Your task to perform on an android device: toggle sleep mode Image 0: 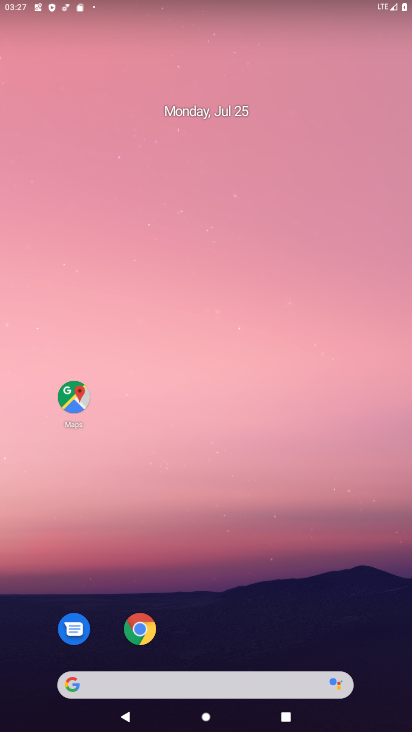
Step 0: drag from (237, 621) to (235, 58)
Your task to perform on an android device: toggle sleep mode Image 1: 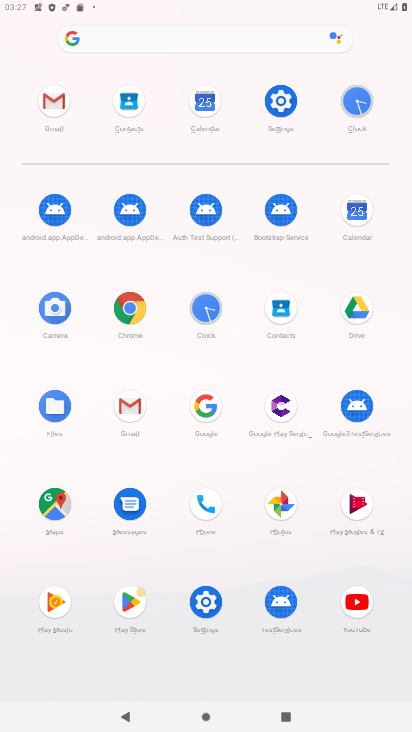
Step 1: click (277, 109)
Your task to perform on an android device: toggle sleep mode Image 2: 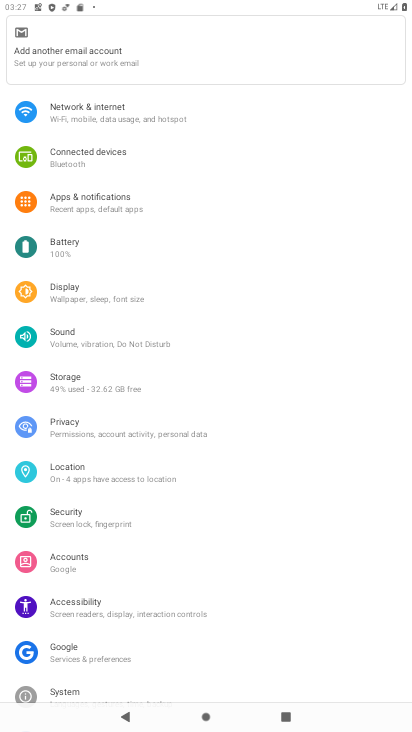
Step 2: click (106, 297)
Your task to perform on an android device: toggle sleep mode Image 3: 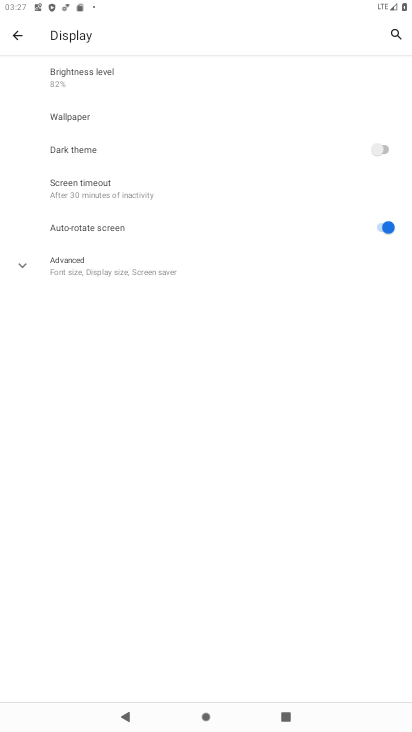
Step 3: click (32, 268)
Your task to perform on an android device: toggle sleep mode Image 4: 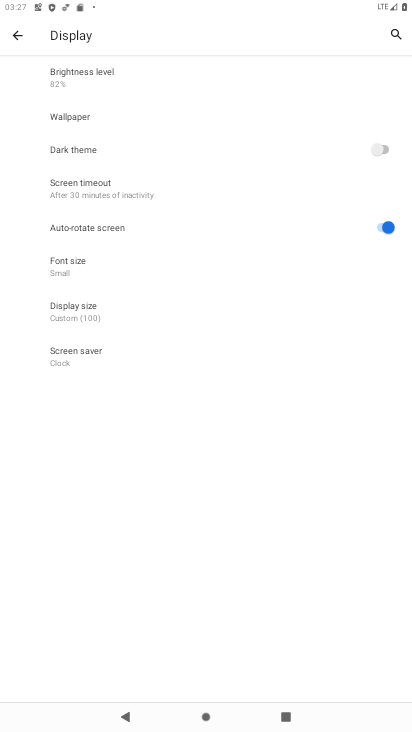
Step 4: task complete